Your task to perform on an android device: turn off notifications in google photos Image 0: 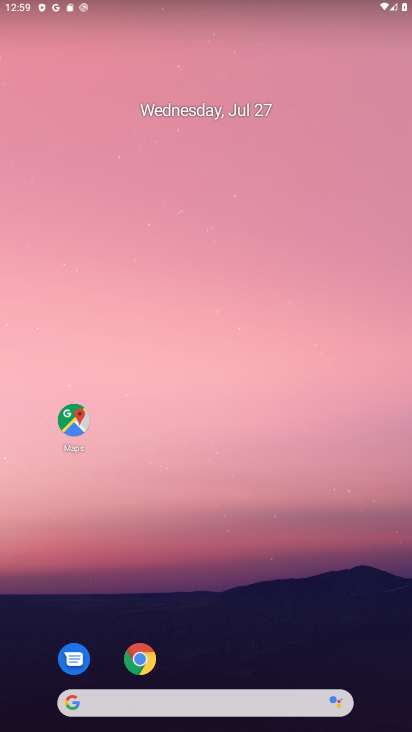
Step 0: drag from (263, 654) to (270, 303)
Your task to perform on an android device: turn off notifications in google photos Image 1: 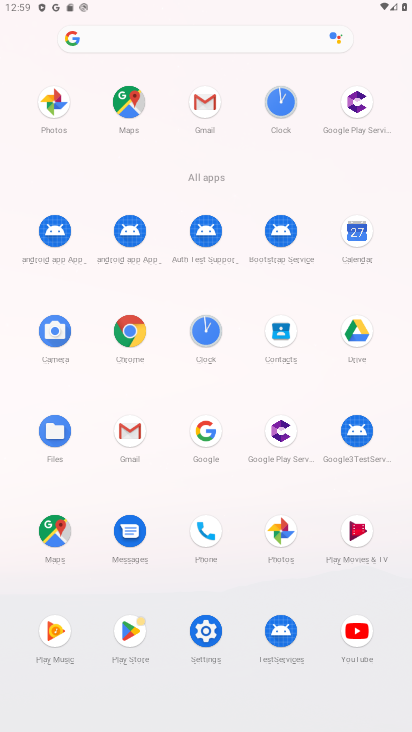
Step 1: click (289, 527)
Your task to perform on an android device: turn off notifications in google photos Image 2: 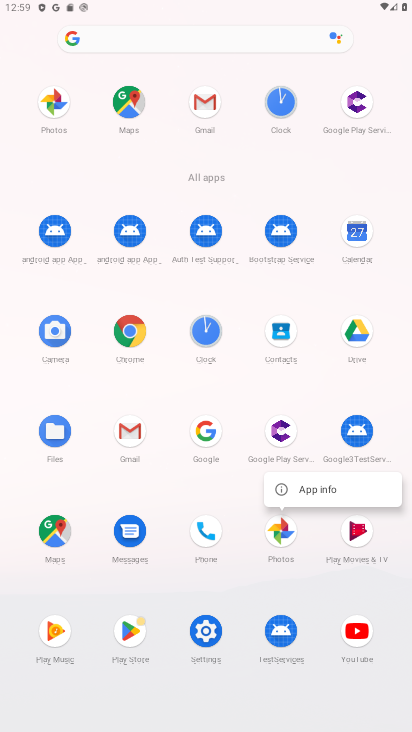
Step 2: click (341, 488)
Your task to perform on an android device: turn off notifications in google photos Image 3: 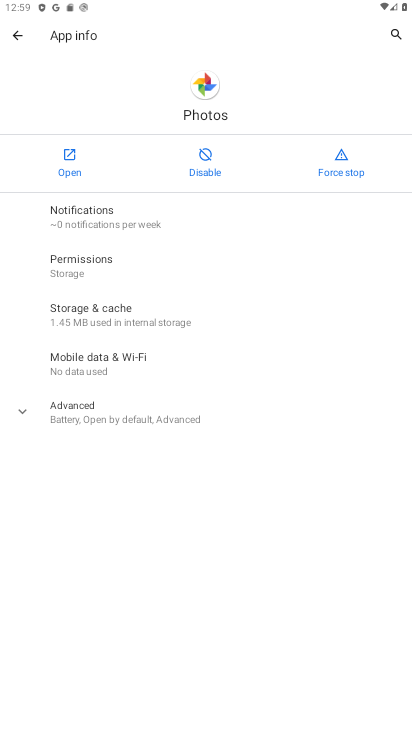
Step 3: click (173, 212)
Your task to perform on an android device: turn off notifications in google photos Image 4: 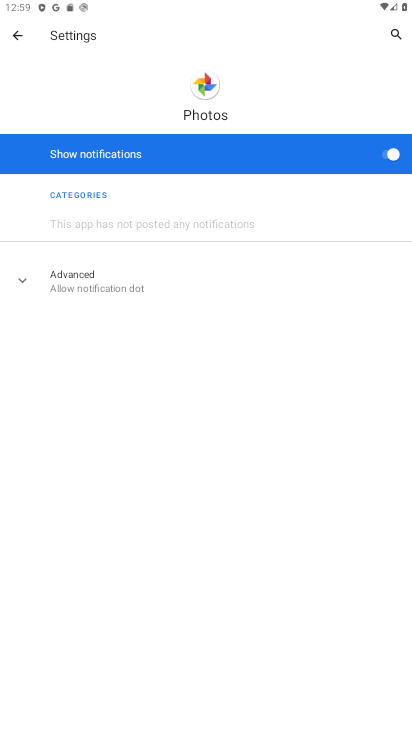
Step 4: click (395, 161)
Your task to perform on an android device: turn off notifications in google photos Image 5: 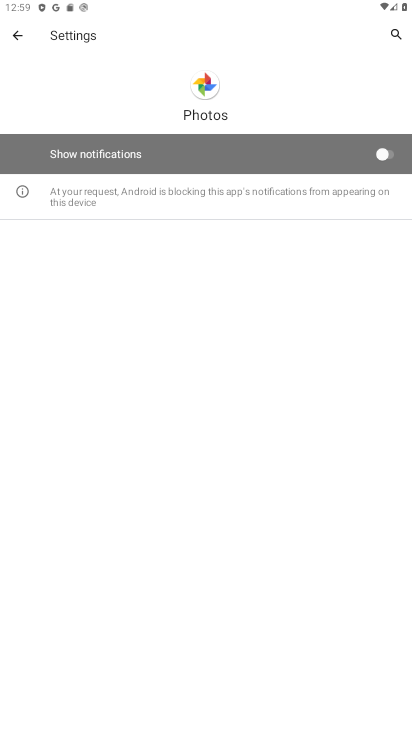
Step 5: task complete